Your task to perform on an android device: What's the weather today? Image 0: 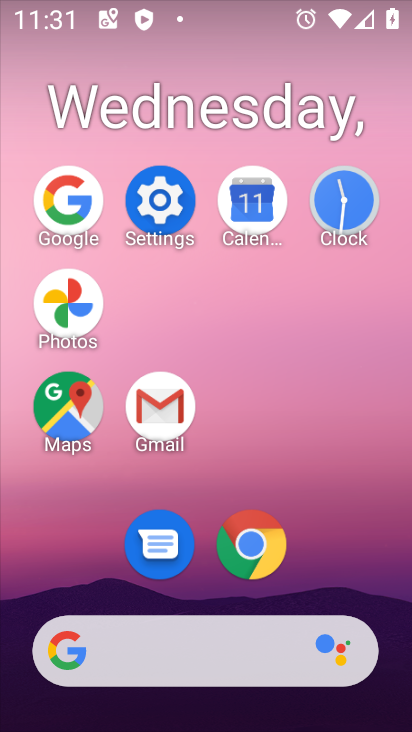
Step 0: click (80, 210)
Your task to perform on an android device: What's the weather today? Image 1: 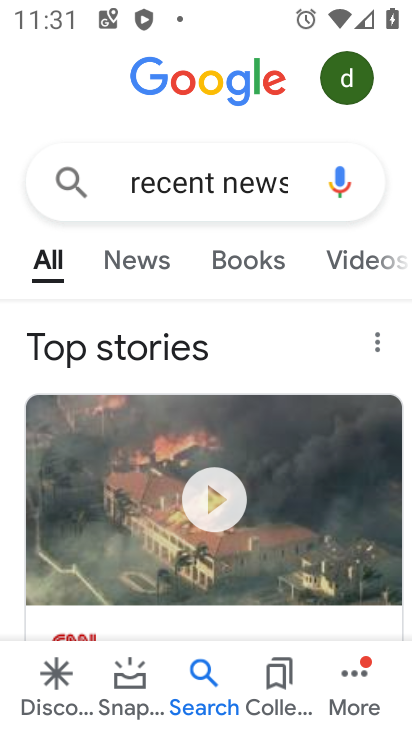
Step 1: click (232, 187)
Your task to perform on an android device: What's the weather today? Image 2: 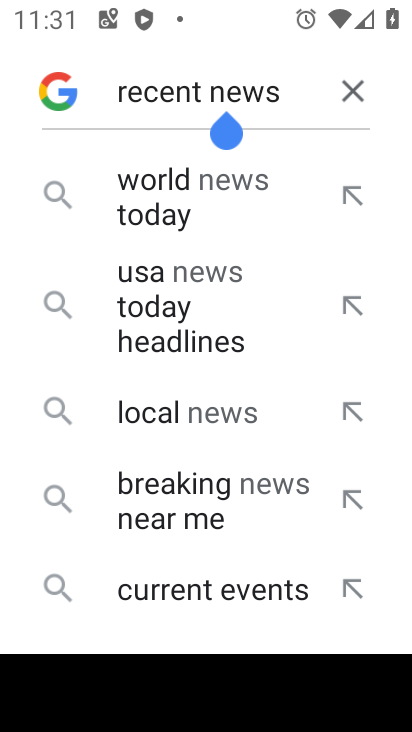
Step 2: click (335, 89)
Your task to perform on an android device: What's the weather today? Image 3: 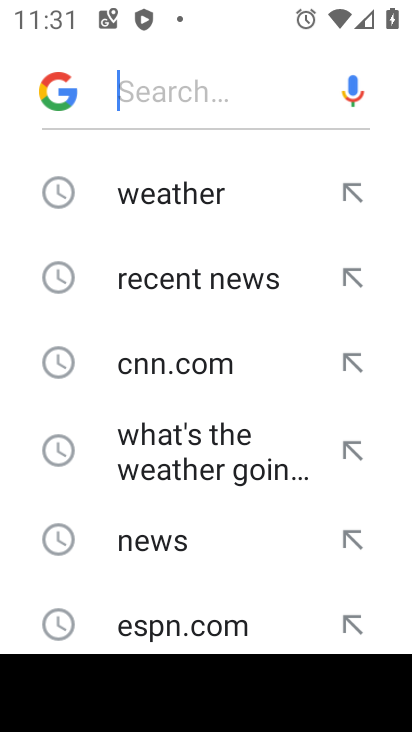
Step 3: click (213, 207)
Your task to perform on an android device: What's the weather today? Image 4: 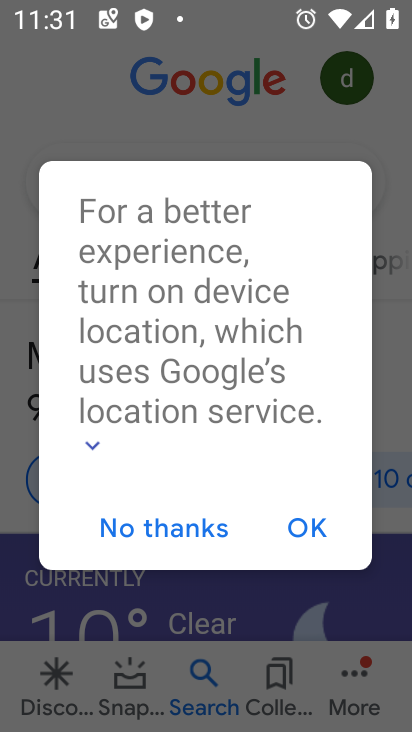
Step 4: task complete